Your task to perform on an android device: turn on the 24-hour format for clock Image 0: 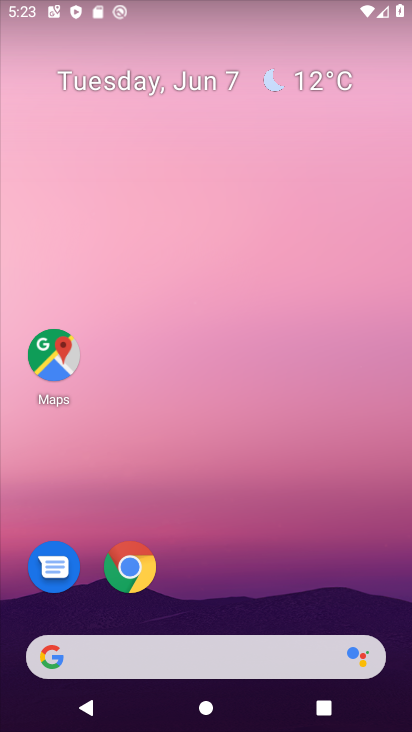
Step 0: drag from (319, 495) to (223, 27)
Your task to perform on an android device: turn on the 24-hour format for clock Image 1: 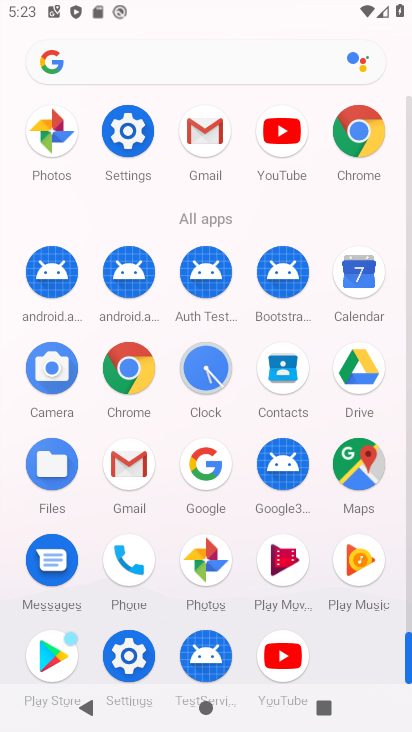
Step 1: click (206, 366)
Your task to perform on an android device: turn on the 24-hour format for clock Image 2: 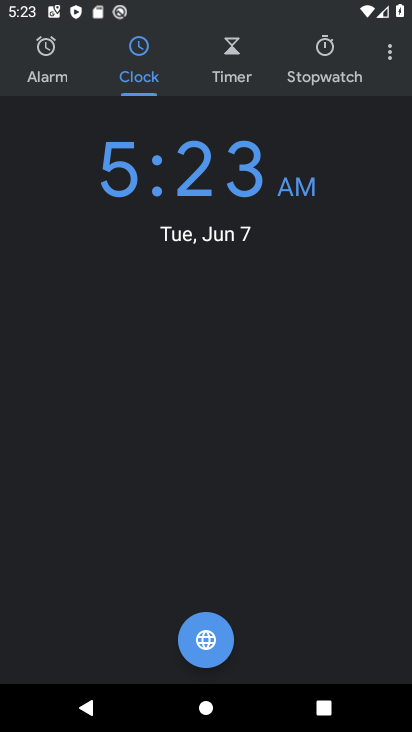
Step 2: drag from (389, 64) to (302, 103)
Your task to perform on an android device: turn on the 24-hour format for clock Image 3: 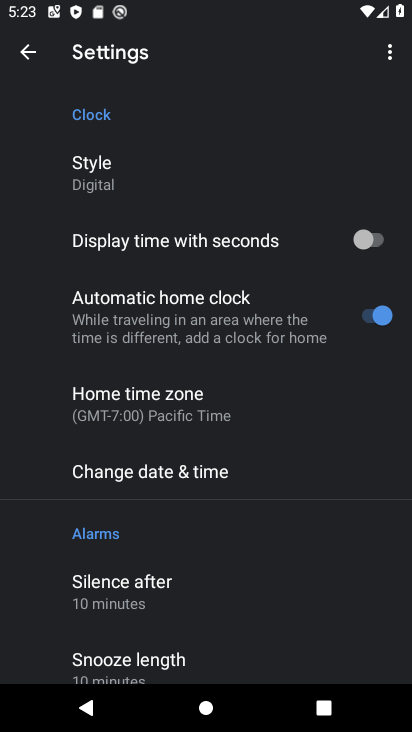
Step 3: click (187, 456)
Your task to perform on an android device: turn on the 24-hour format for clock Image 4: 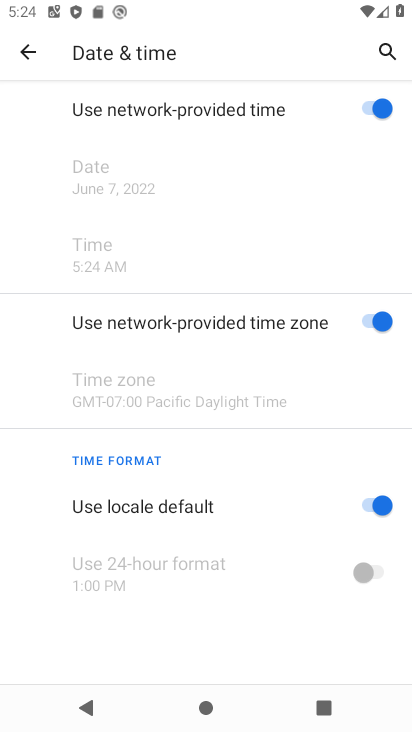
Step 4: click (373, 577)
Your task to perform on an android device: turn on the 24-hour format for clock Image 5: 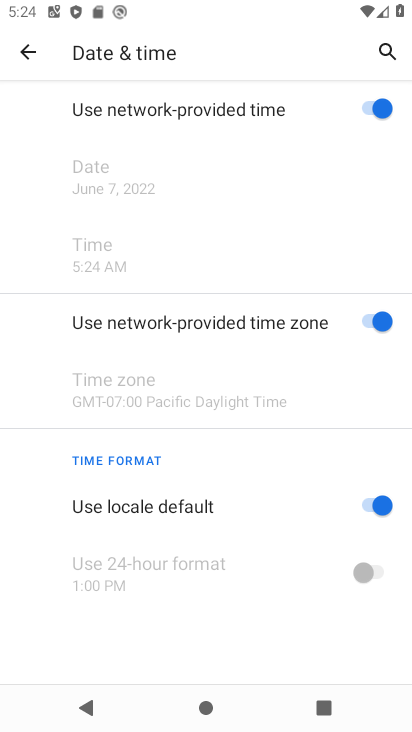
Step 5: click (377, 507)
Your task to perform on an android device: turn on the 24-hour format for clock Image 6: 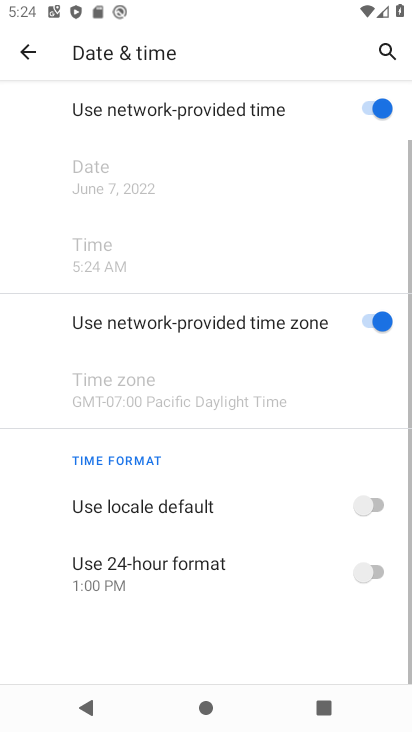
Step 6: click (369, 575)
Your task to perform on an android device: turn on the 24-hour format for clock Image 7: 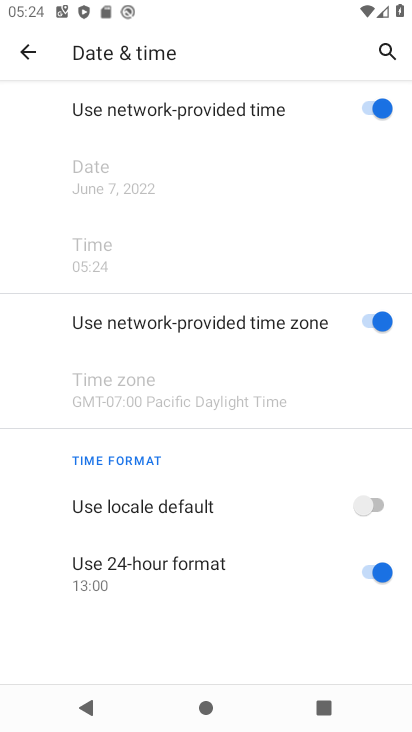
Step 7: task complete